Your task to perform on an android device: turn smart compose on in the gmail app Image 0: 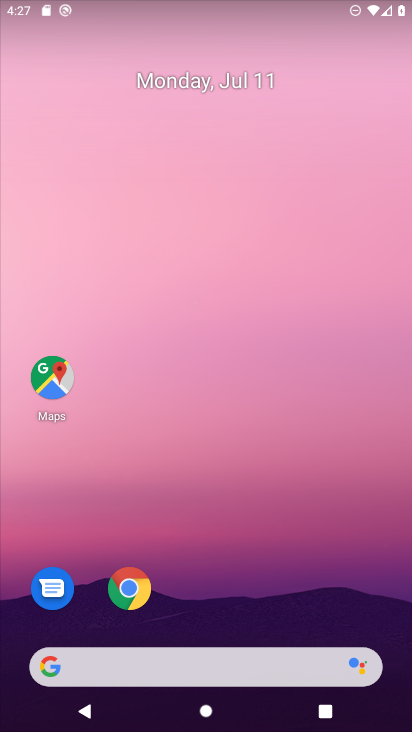
Step 0: press home button
Your task to perform on an android device: turn smart compose on in the gmail app Image 1: 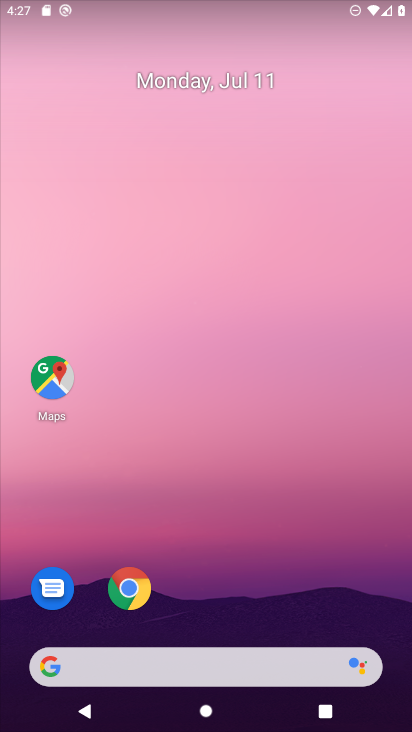
Step 1: drag from (237, 595) to (219, 35)
Your task to perform on an android device: turn smart compose on in the gmail app Image 2: 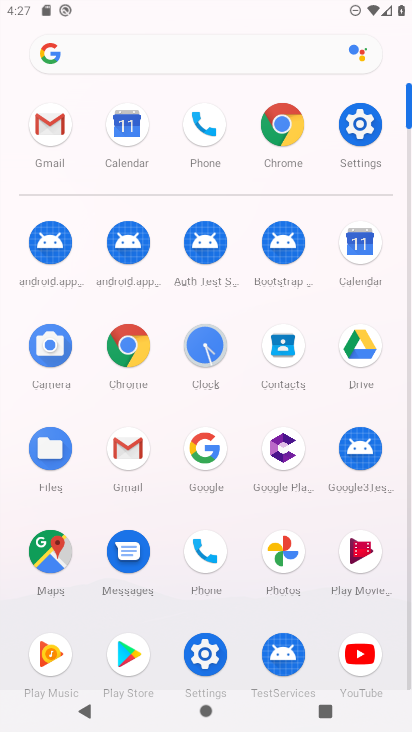
Step 2: click (54, 119)
Your task to perform on an android device: turn smart compose on in the gmail app Image 3: 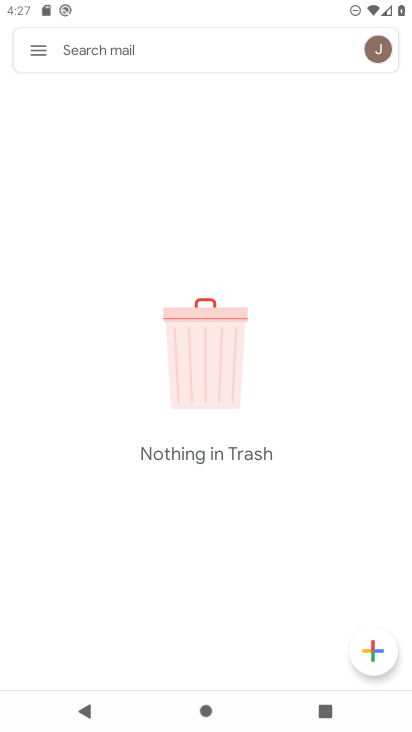
Step 3: click (39, 51)
Your task to perform on an android device: turn smart compose on in the gmail app Image 4: 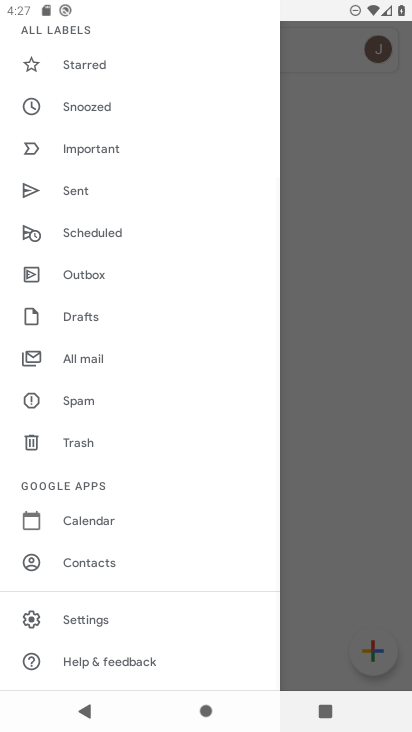
Step 4: click (86, 621)
Your task to perform on an android device: turn smart compose on in the gmail app Image 5: 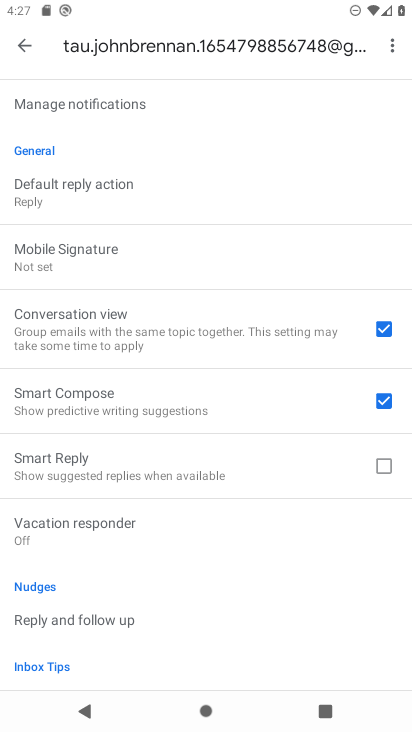
Step 5: drag from (332, 562) to (309, 55)
Your task to perform on an android device: turn smart compose on in the gmail app Image 6: 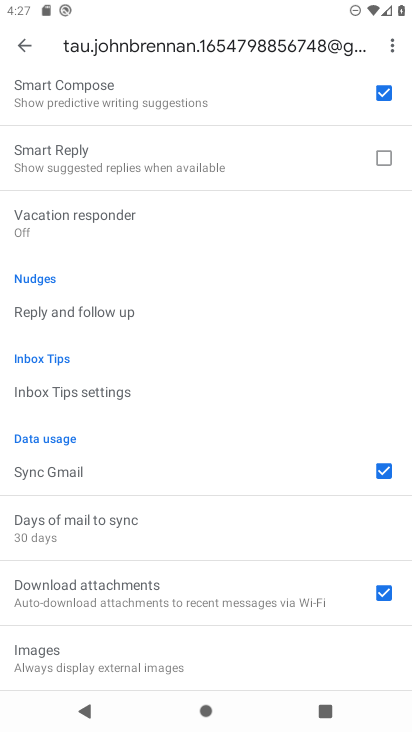
Step 6: drag from (211, 536) to (276, 21)
Your task to perform on an android device: turn smart compose on in the gmail app Image 7: 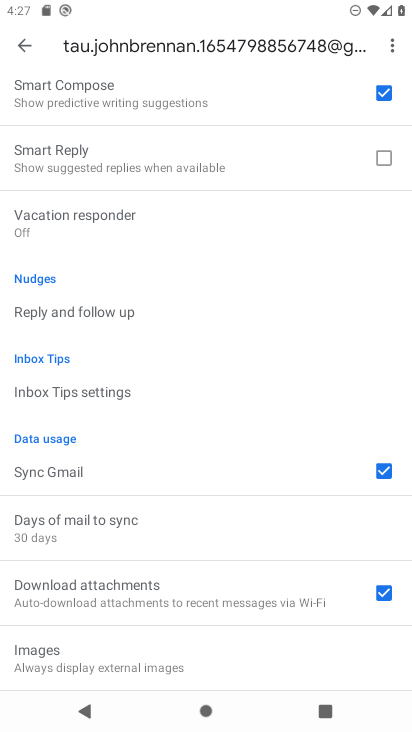
Step 7: click (25, 48)
Your task to perform on an android device: turn smart compose on in the gmail app Image 8: 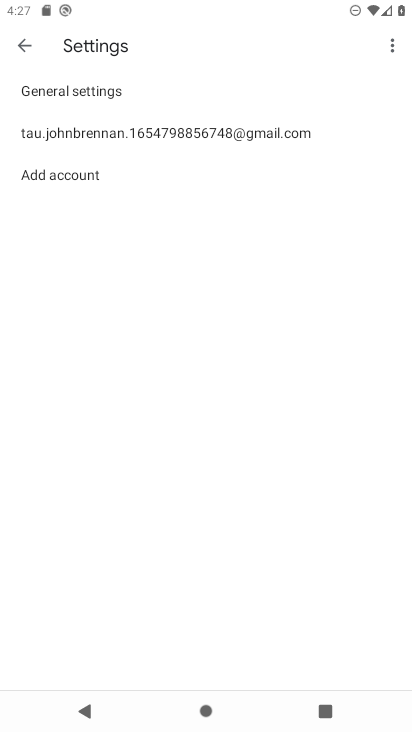
Step 8: click (119, 139)
Your task to perform on an android device: turn smart compose on in the gmail app Image 9: 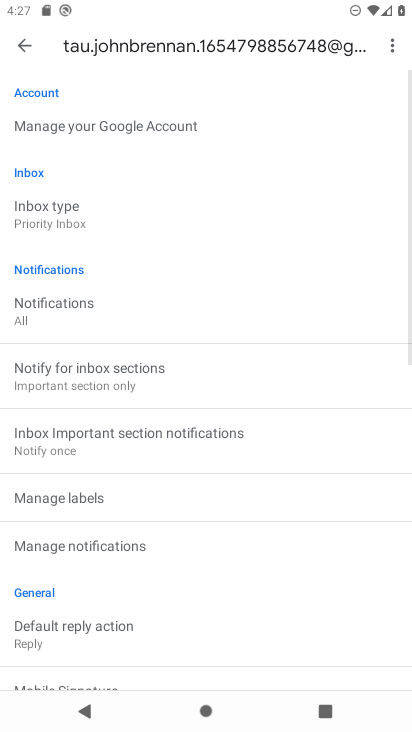
Step 9: task complete